Your task to perform on an android device: Open calendar and show me the third week of next month Image 0: 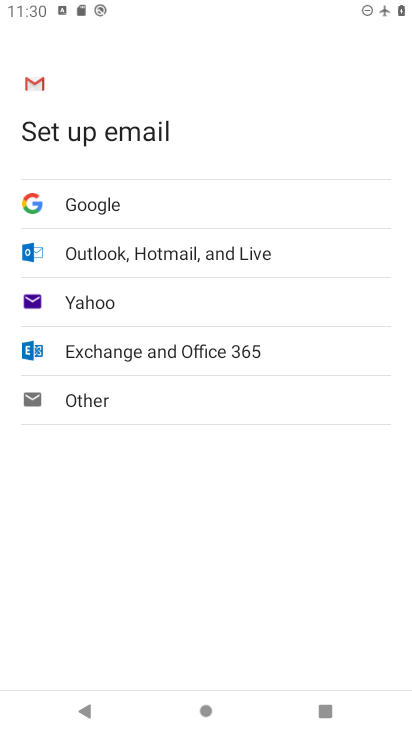
Step 0: press home button
Your task to perform on an android device: Open calendar and show me the third week of next month Image 1: 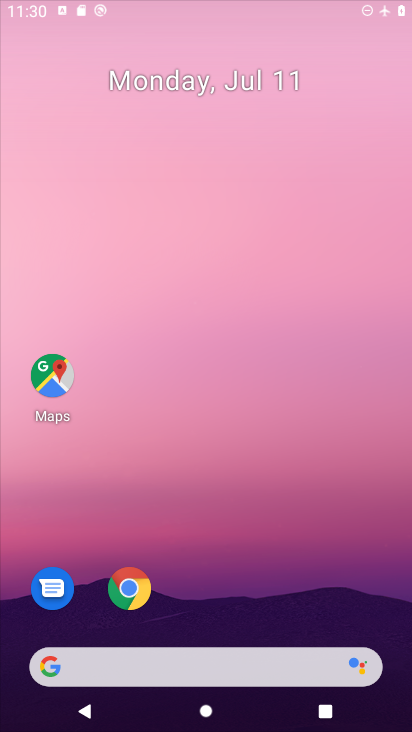
Step 1: drag from (378, 685) to (237, 15)
Your task to perform on an android device: Open calendar and show me the third week of next month Image 2: 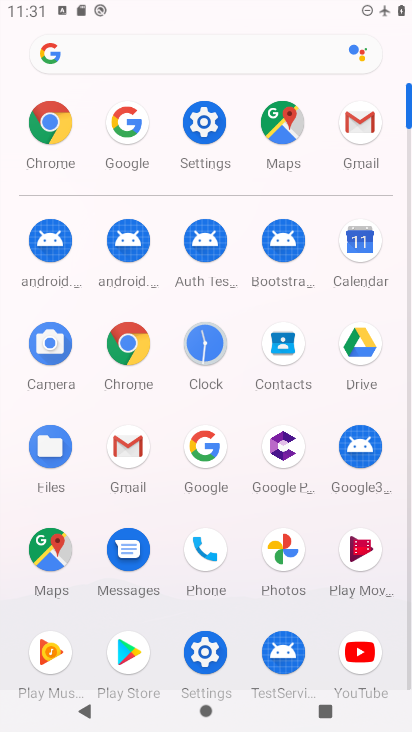
Step 2: click (372, 237)
Your task to perform on an android device: Open calendar and show me the third week of next month Image 3: 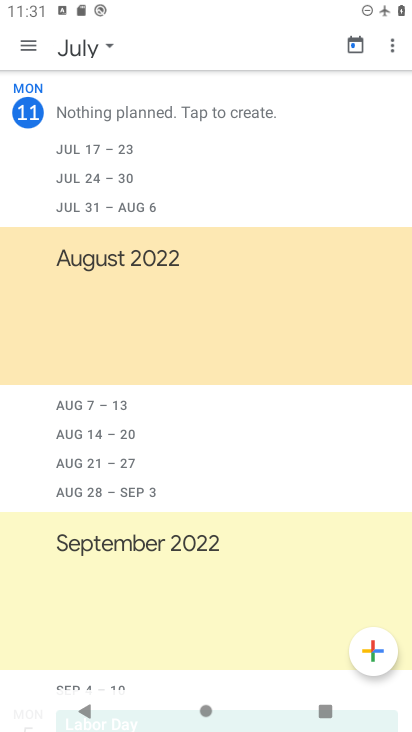
Step 3: click (75, 36)
Your task to perform on an android device: Open calendar and show me the third week of next month Image 4: 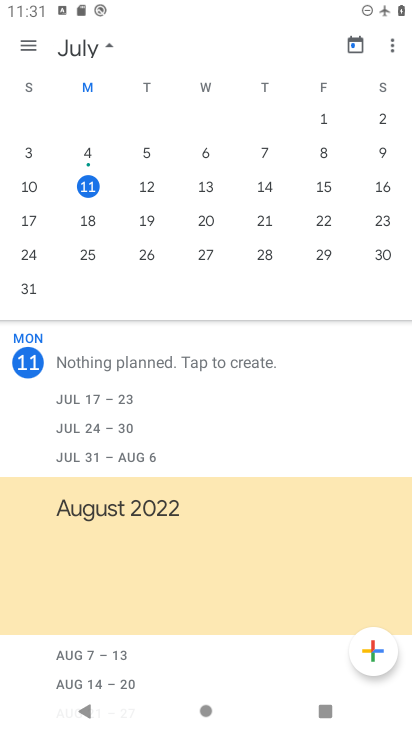
Step 4: drag from (165, 221) to (0, 207)
Your task to perform on an android device: Open calendar and show me the third week of next month Image 5: 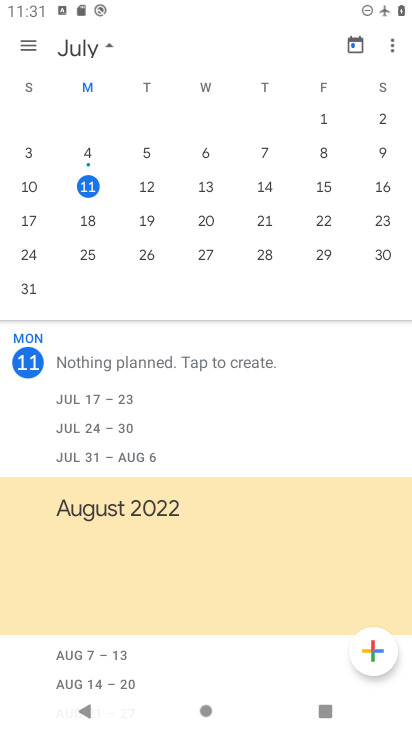
Step 5: drag from (302, 165) to (56, 166)
Your task to perform on an android device: Open calendar and show me the third week of next month Image 6: 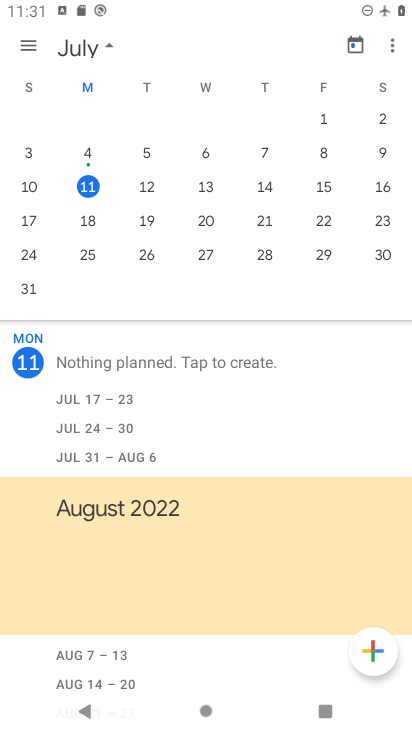
Step 6: drag from (298, 217) to (2, 195)
Your task to perform on an android device: Open calendar and show me the third week of next month Image 7: 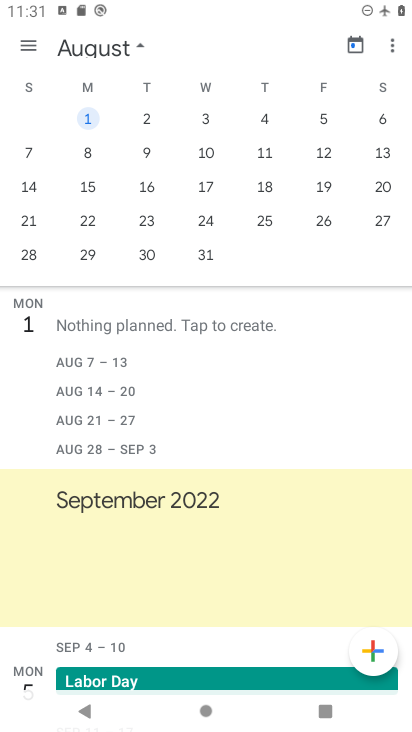
Step 7: click (24, 222)
Your task to perform on an android device: Open calendar and show me the third week of next month Image 8: 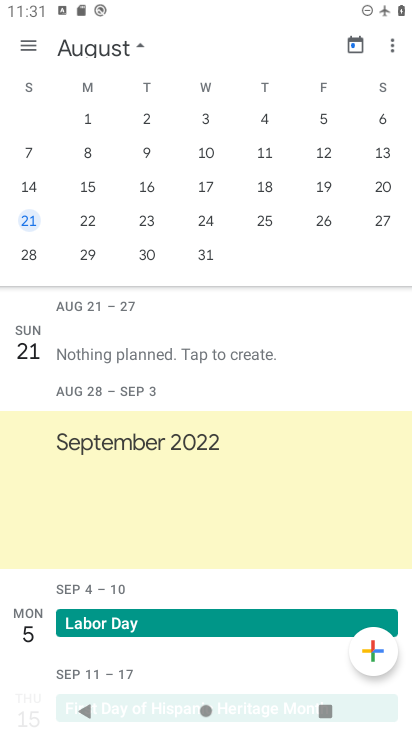
Step 8: task complete